Your task to perform on an android device: Go to Wikipedia Image 0: 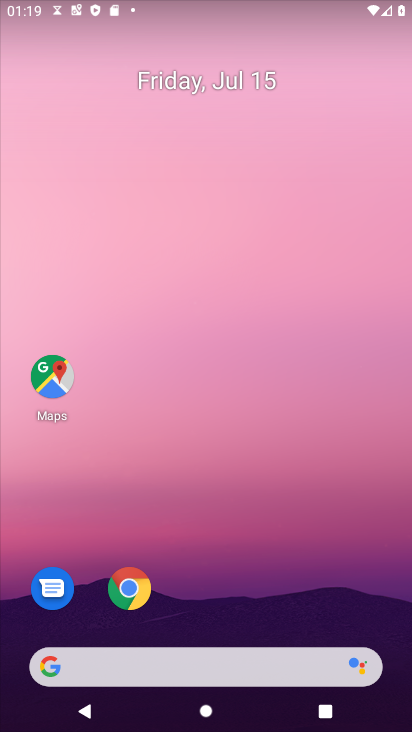
Step 0: click (134, 587)
Your task to perform on an android device: Go to Wikipedia Image 1: 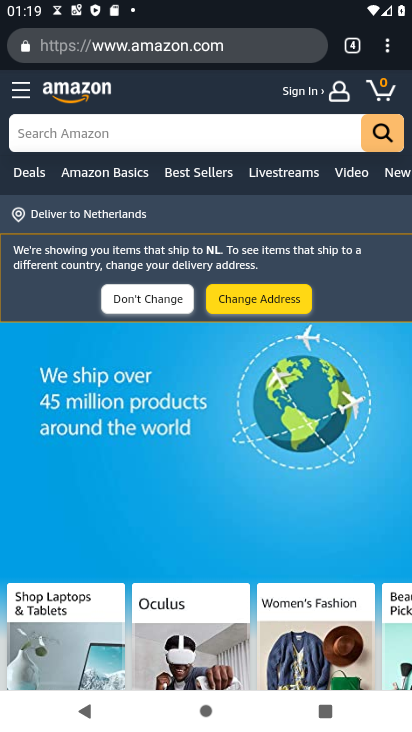
Step 1: click (355, 43)
Your task to perform on an android device: Go to Wikipedia Image 2: 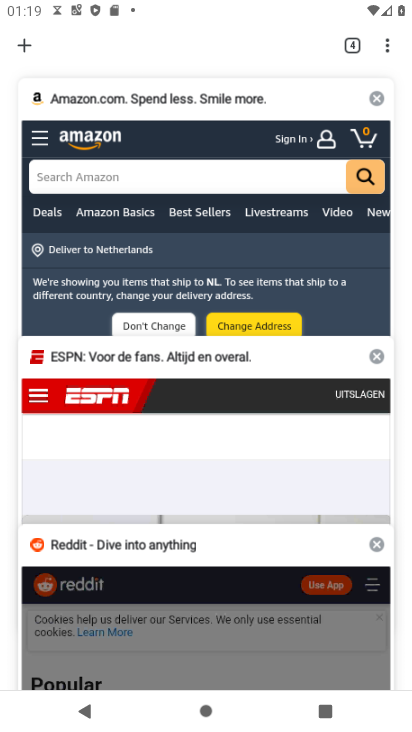
Step 2: click (20, 38)
Your task to perform on an android device: Go to Wikipedia Image 3: 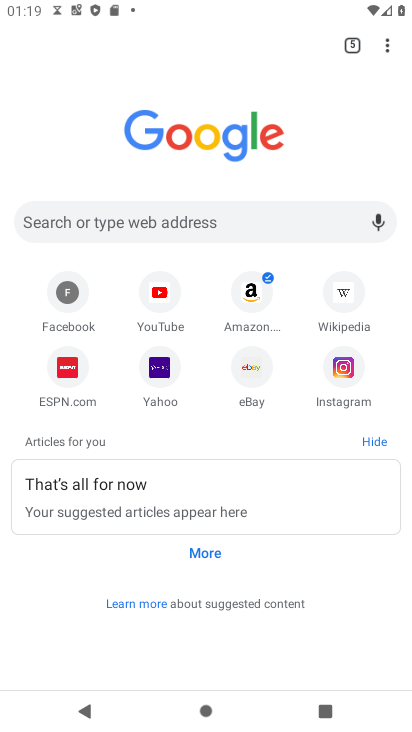
Step 3: click (344, 295)
Your task to perform on an android device: Go to Wikipedia Image 4: 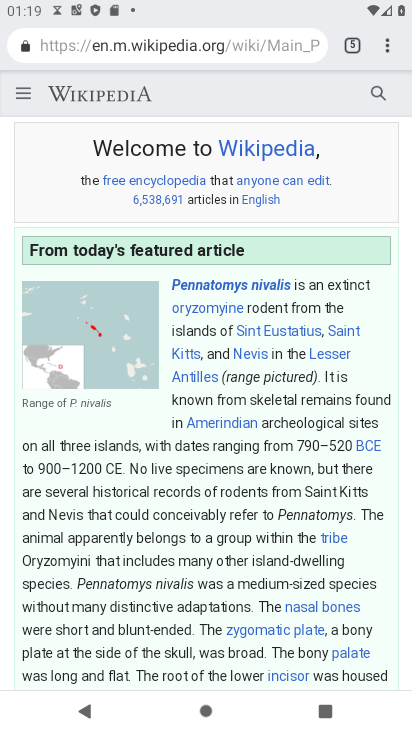
Step 4: task complete